Your task to perform on an android device: set an alarm Image 0: 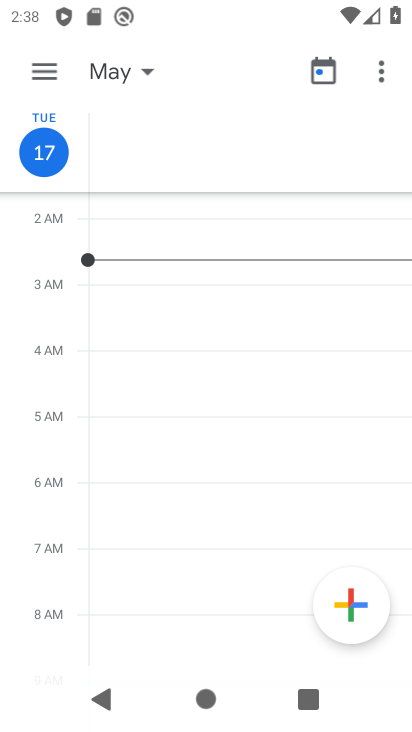
Step 0: press home button
Your task to perform on an android device: set an alarm Image 1: 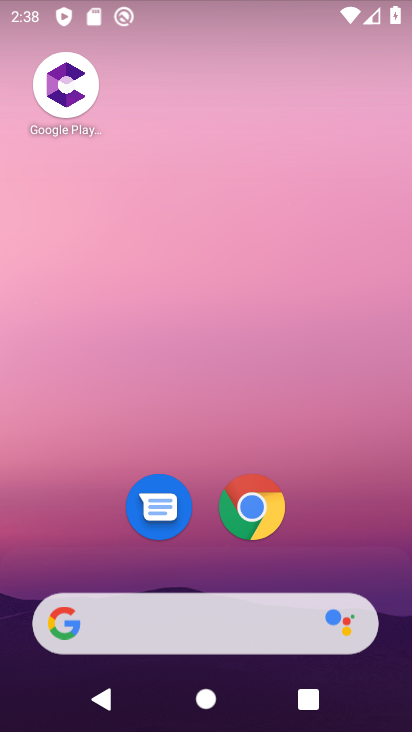
Step 1: drag from (337, 420) to (242, 14)
Your task to perform on an android device: set an alarm Image 2: 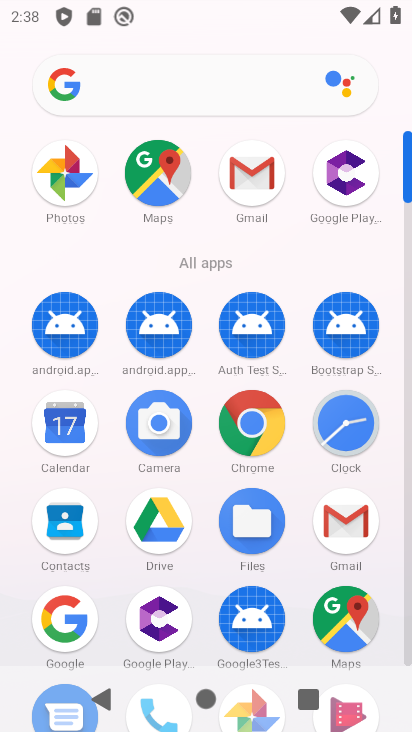
Step 2: drag from (332, 503) to (275, 109)
Your task to perform on an android device: set an alarm Image 3: 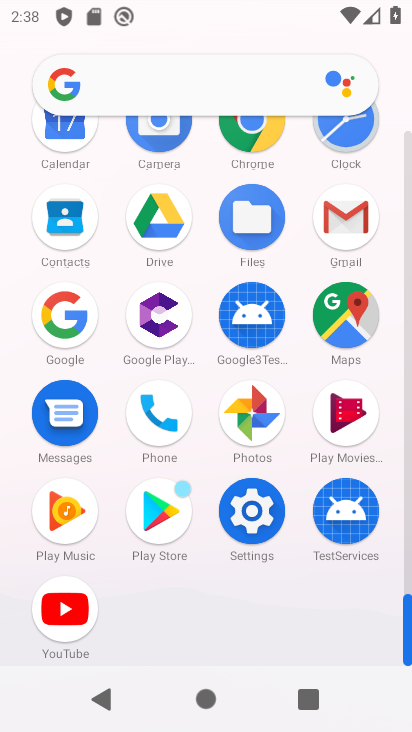
Step 3: click (340, 134)
Your task to perform on an android device: set an alarm Image 4: 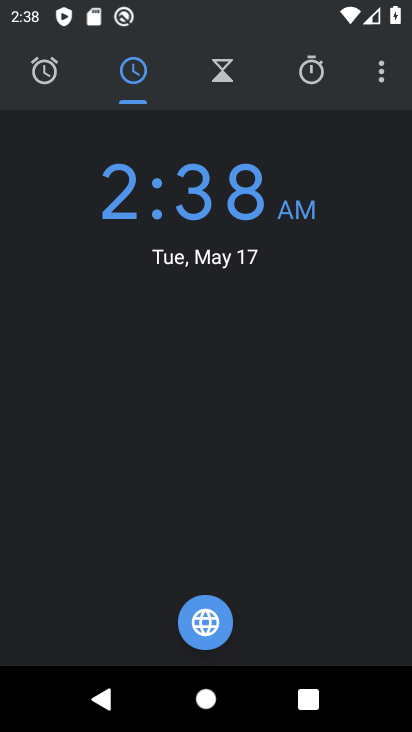
Step 4: click (38, 73)
Your task to perform on an android device: set an alarm Image 5: 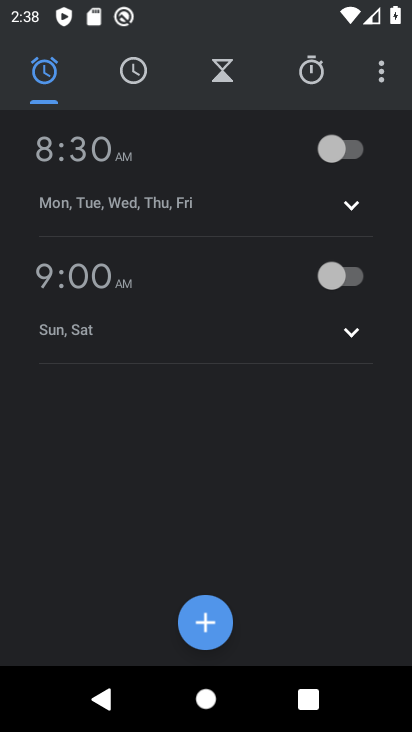
Step 5: click (369, 148)
Your task to perform on an android device: set an alarm Image 6: 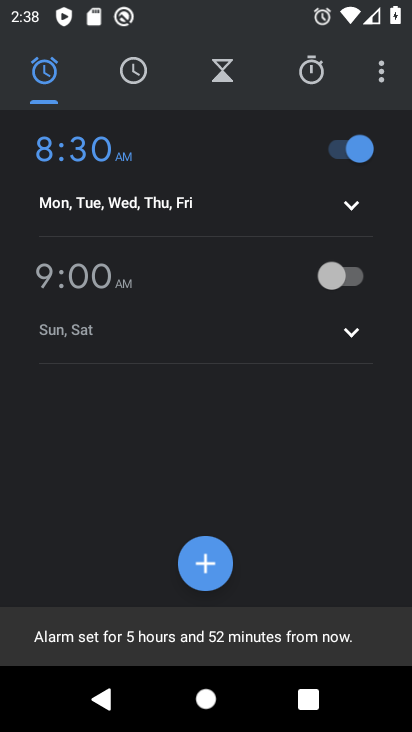
Step 6: task complete